Your task to perform on an android device: Open Wikipedia Image 0: 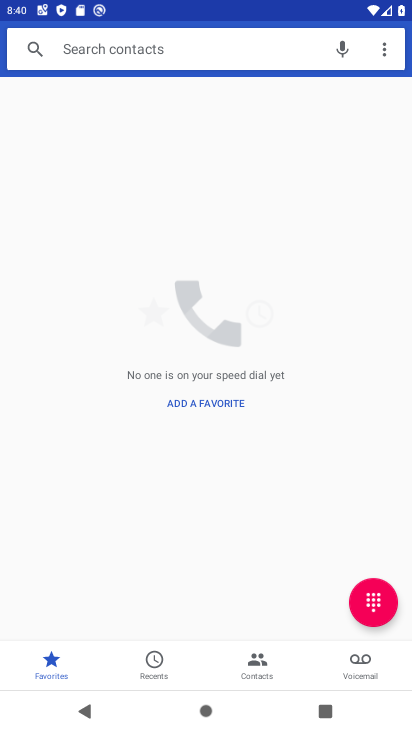
Step 0: press home button
Your task to perform on an android device: Open Wikipedia Image 1: 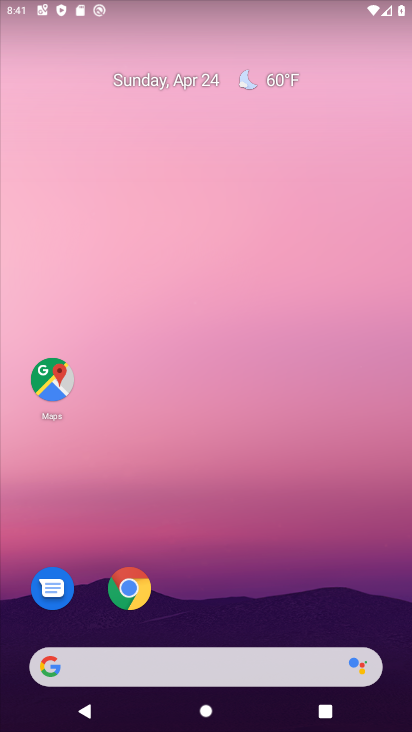
Step 1: click (129, 591)
Your task to perform on an android device: Open Wikipedia Image 2: 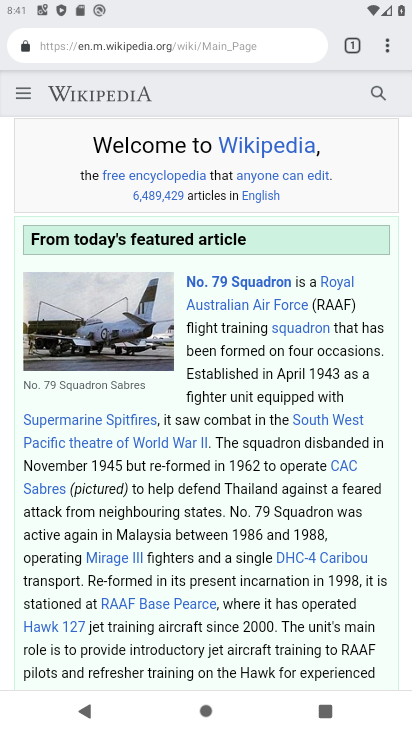
Step 2: task complete